Your task to perform on an android device: Search for Italian restaurants on Maps Image 0: 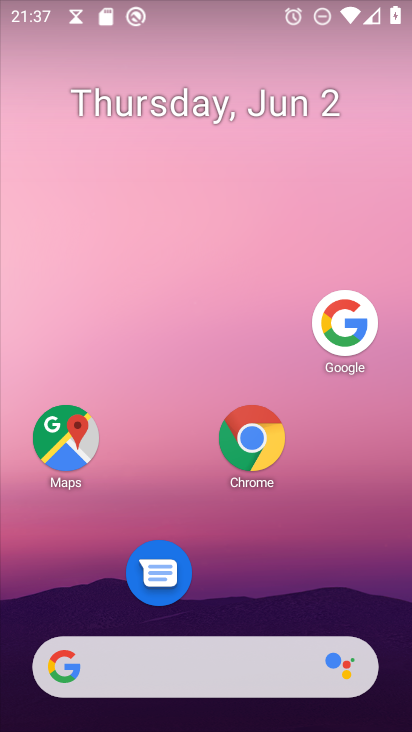
Step 0: press home button
Your task to perform on an android device: Search for Italian restaurants on Maps Image 1: 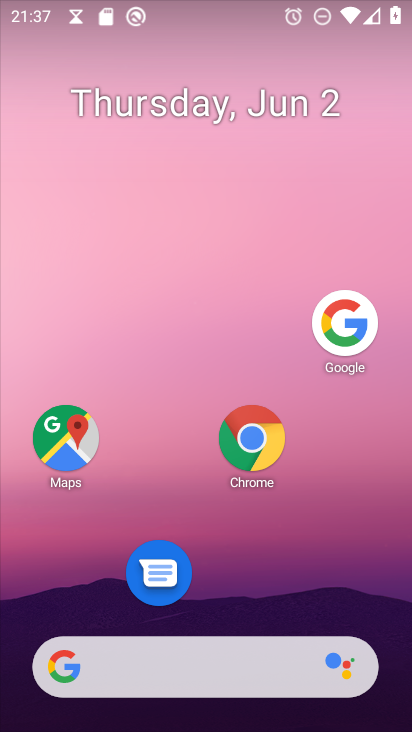
Step 1: click (69, 447)
Your task to perform on an android device: Search for Italian restaurants on Maps Image 2: 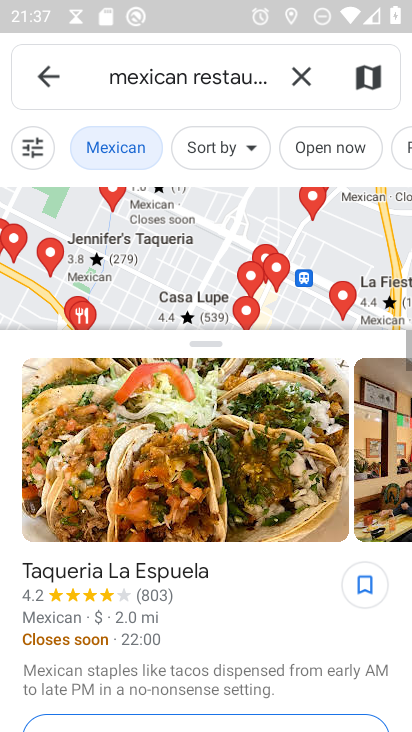
Step 2: click (301, 76)
Your task to perform on an android device: Search for Italian restaurants on Maps Image 3: 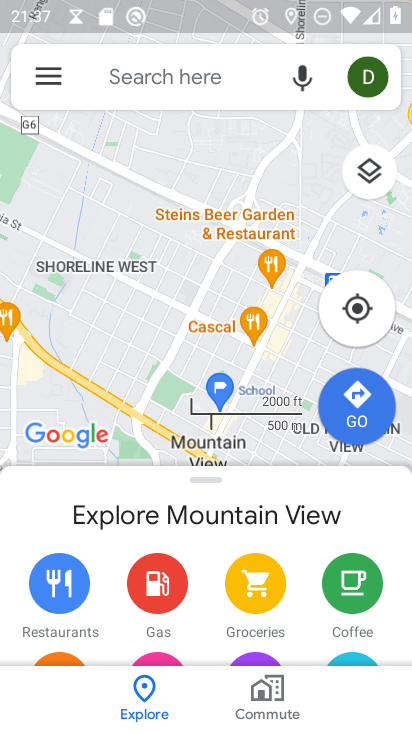
Step 3: click (162, 72)
Your task to perform on an android device: Search for Italian restaurants on Maps Image 4: 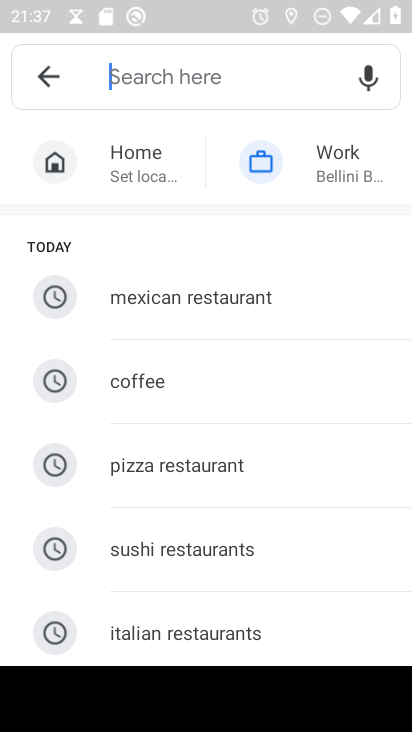
Step 4: click (222, 630)
Your task to perform on an android device: Search for Italian restaurants on Maps Image 5: 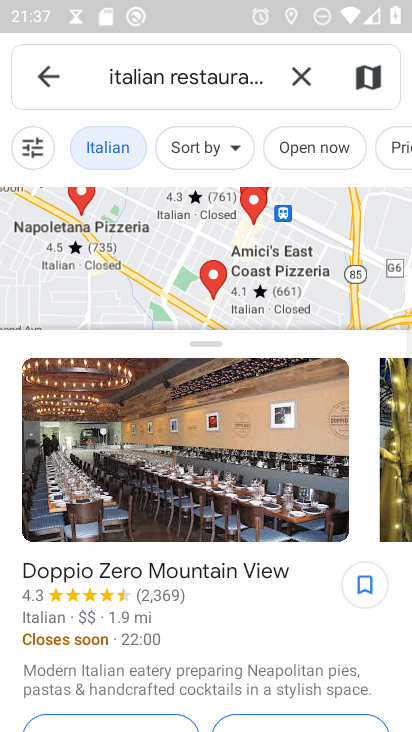
Step 5: task complete